Your task to perform on an android device: Open Chrome and go to the settings page Image 0: 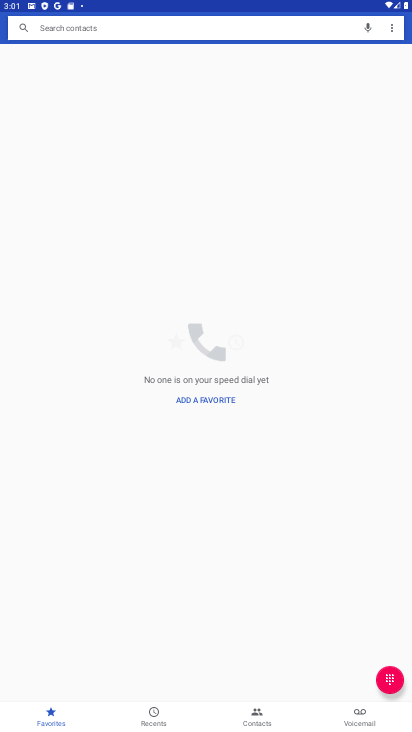
Step 0: press home button
Your task to perform on an android device: Open Chrome and go to the settings page Image 1: 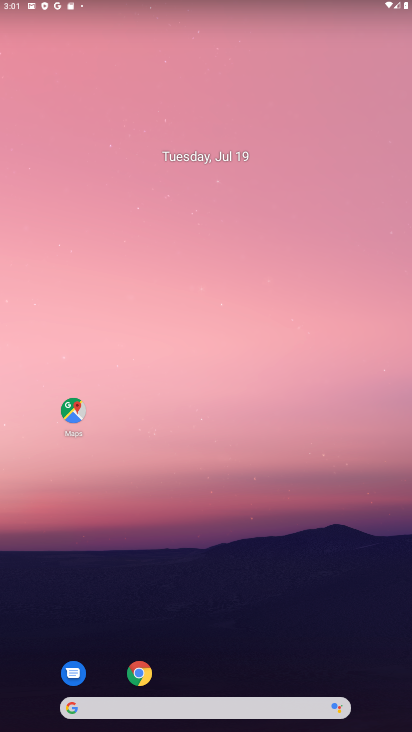
Step 1: press home button
Your task to perform on an android device: Open Chrome and go to the settings page Image 2: 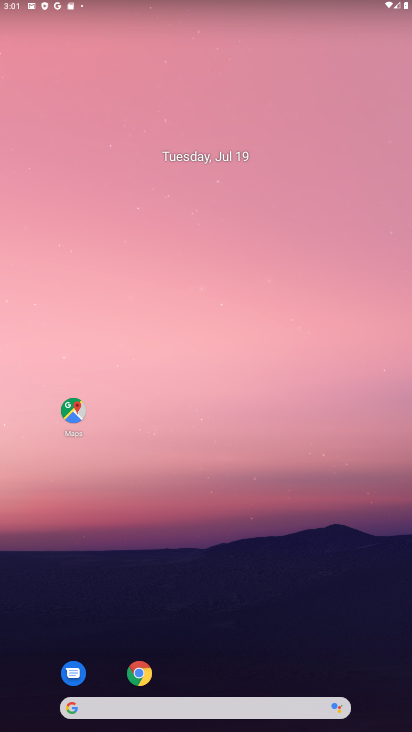
Step 2: click (147, 666)
Your task to perform on an android device: Open Chrome and go to the settings page Image 3: 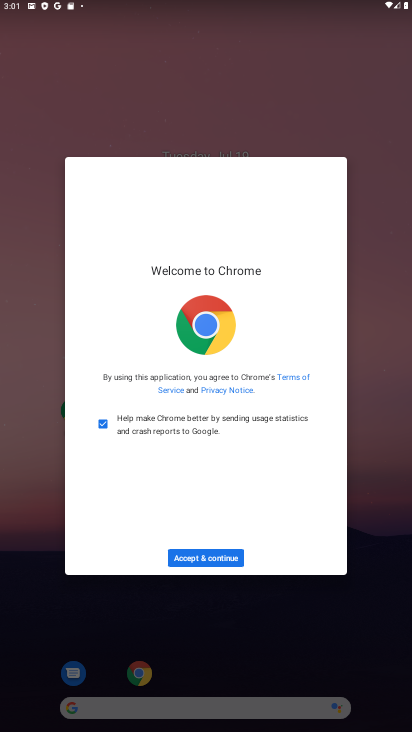
Step 3: click (207, 548)
Your task to perform on an android device: Open Chrome and go to the settings page Image 4: 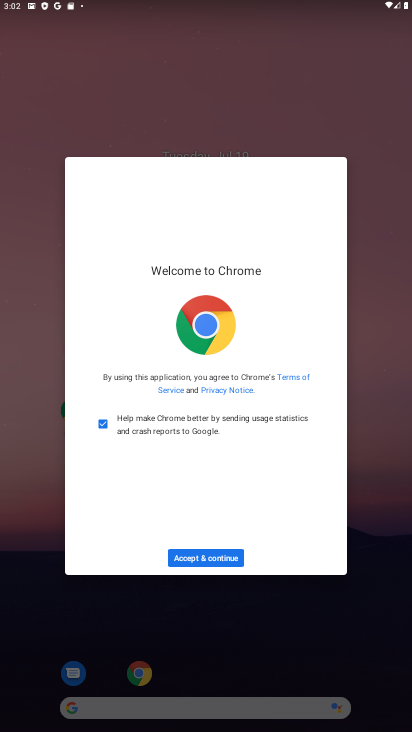
Step 4: click (201, 558)
Your task to perform on an android device: Open Chrome and go to the settings page Image 5: 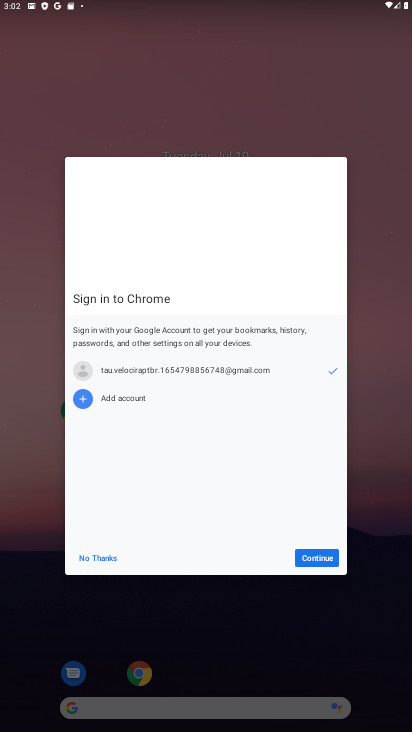
Step 5: click (320, 556)
Your task to perform on an android device: Open Chrome and go to the settings page Image 6: 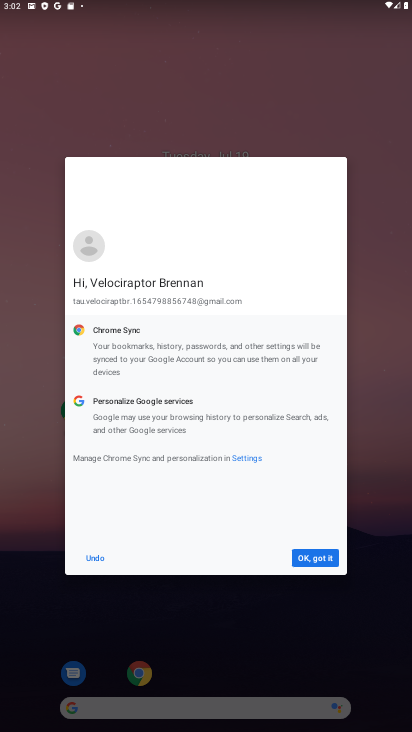
Step 6: click (311, 558)
Your task to perform on an android device: Open Chrome and go to the settings page Image 7: 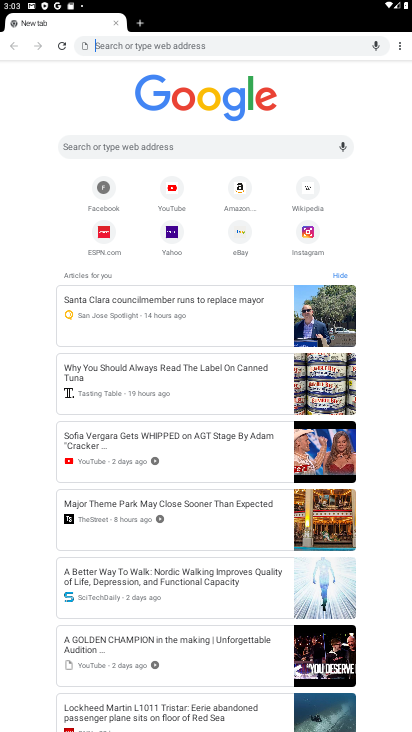
Step 7: click (398, 51)
Your task to perform on an android device: Open Chrome and go to the settings page Image 8: 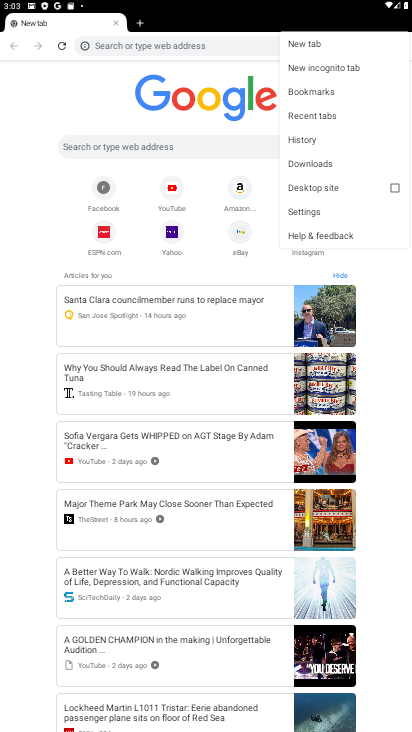
Step 8: click (321, 213)
Your task to perform on an android device: Open Chrome and go to the settings page Image 9: 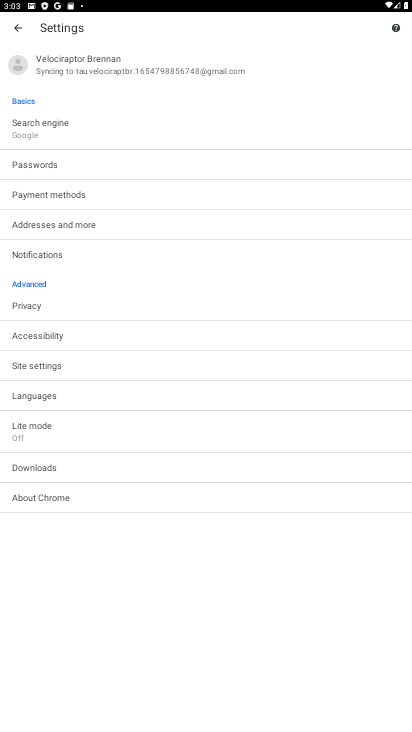
Step 9: task complete